Your task to perform on an android device: When is my next meeting? Image 0: 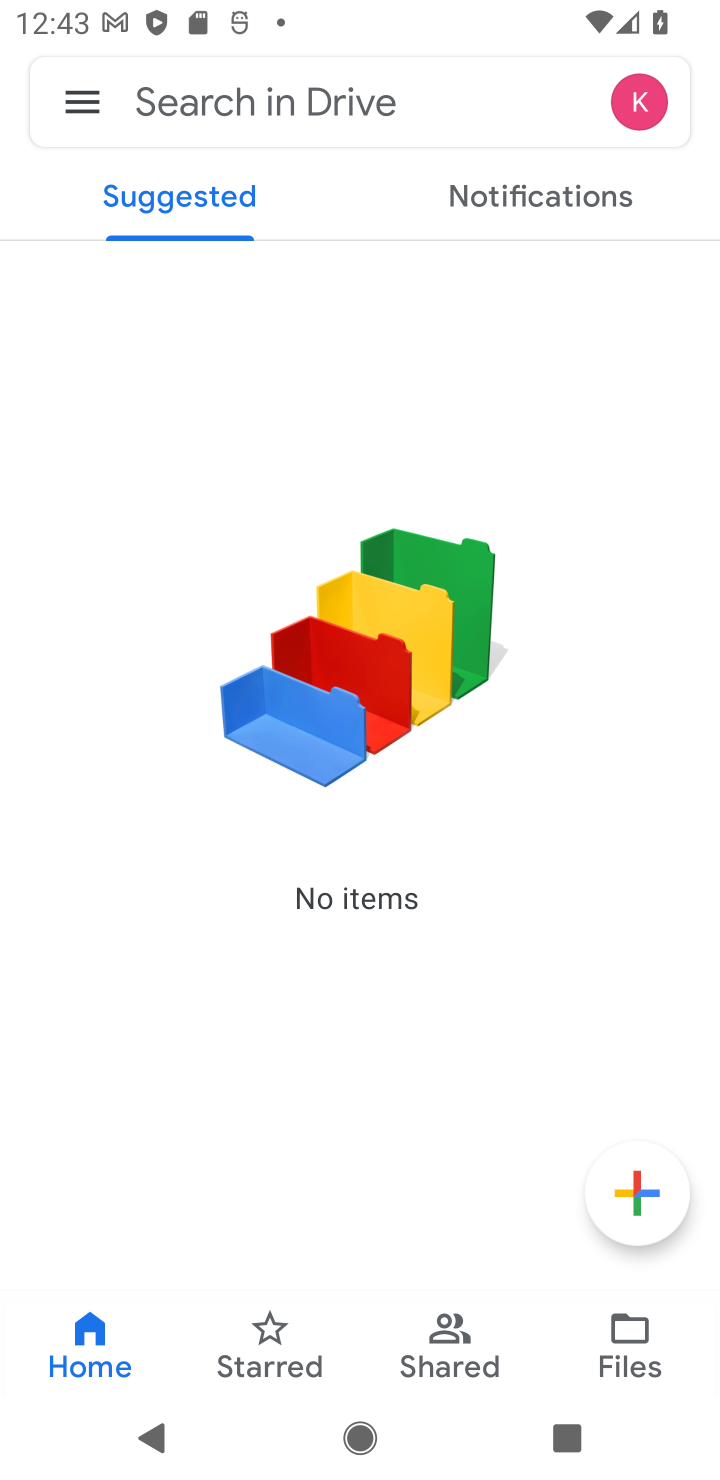
Step 0: press home button
Your task to perform on an android device: When is my next meeting? Image 1: 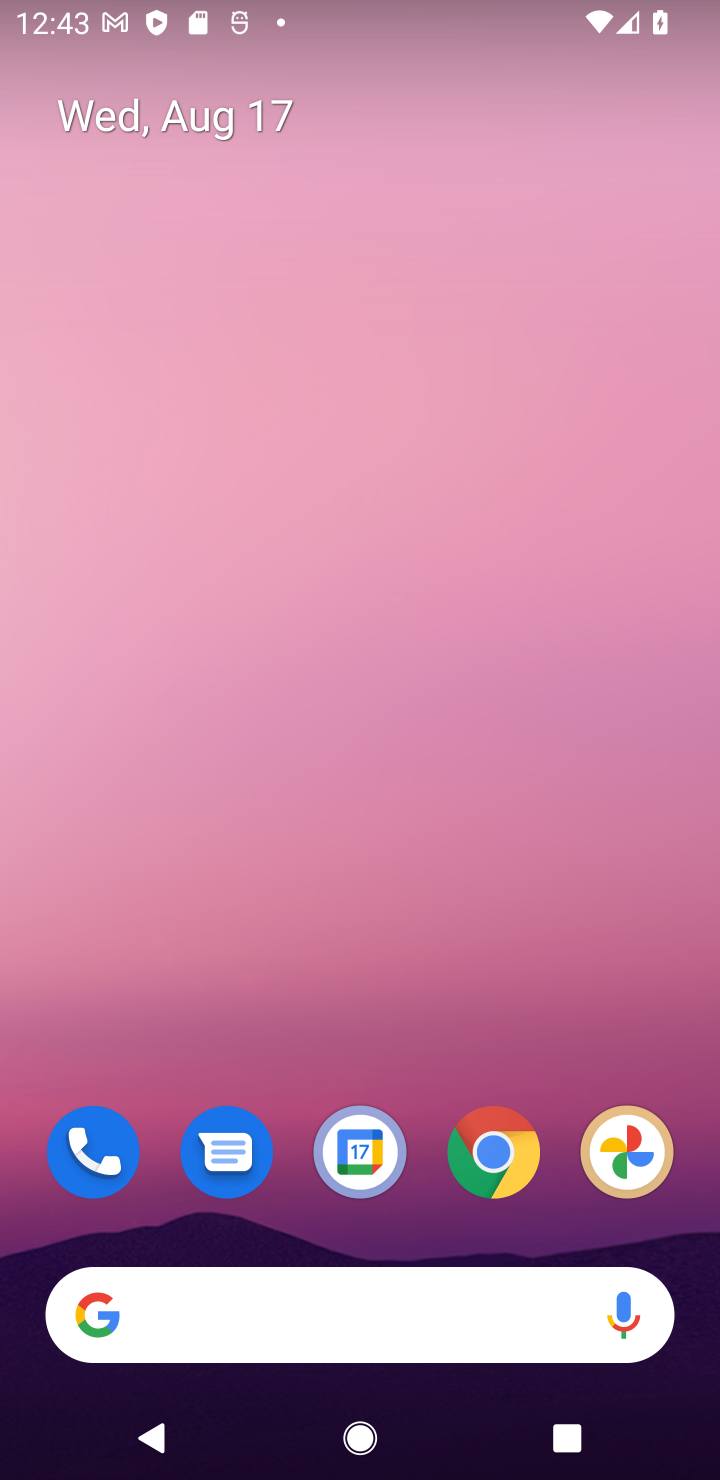
Step 1: drag from (602, 993) to (419, 36)
Your task to perform on an android device: When is my next meeting? Image 2: 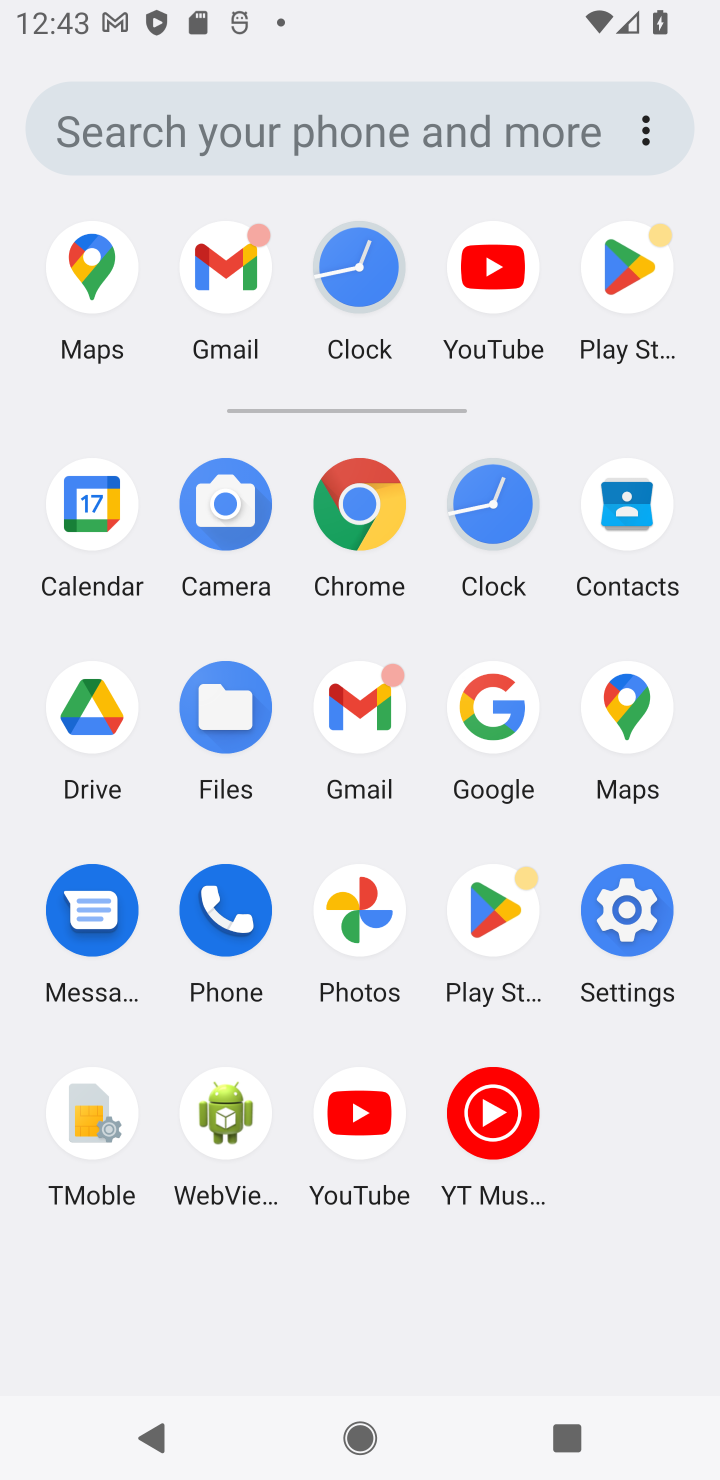
Step 2: click (76, 528)
Your task to perform on an android device: When is my next meeting? Image 3: 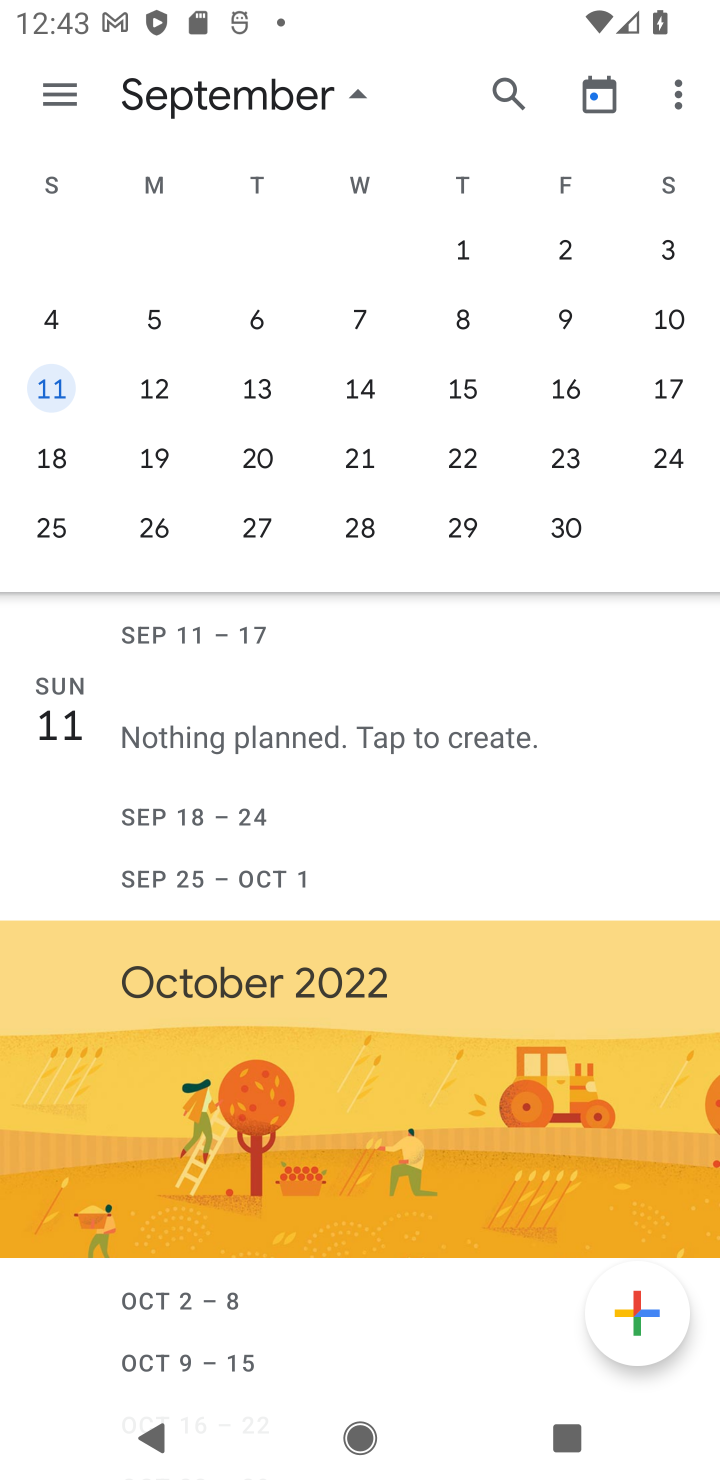
Step 3: task complete